Your task to perform on an android device: open the mobile data screen to see how much data has been used Image 0: 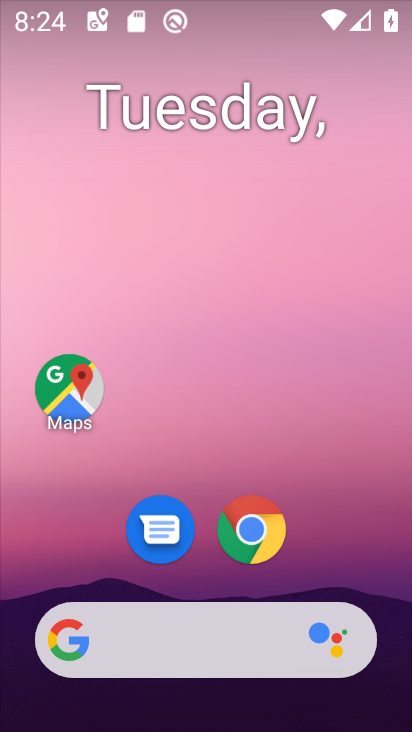
Step 0: drag from (196, 560) to (253, 53)
Your task to perform on an android device: open the mobile data screen to see how much data has been used Image 1: 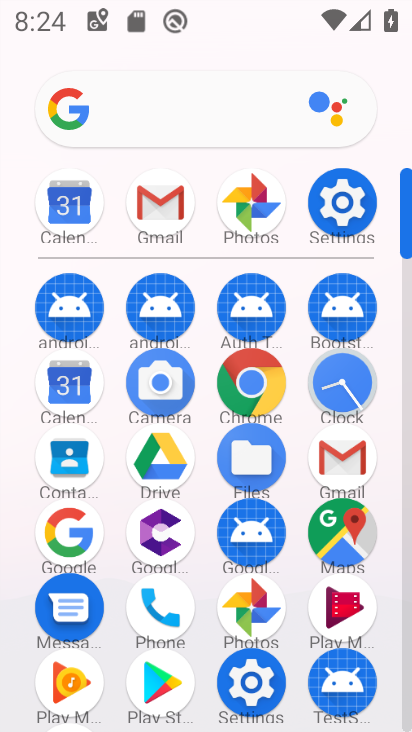
Step 1: click (321, 191)
Your task to perform on an android device: open the mobile data screen to see how much data has been used Image 2: 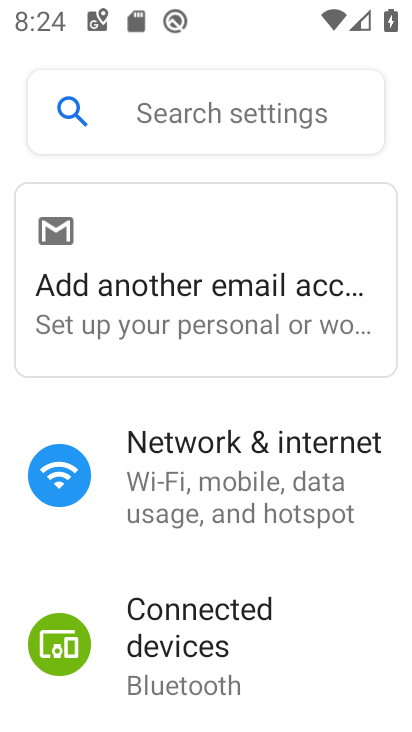
Step 2: click (256, 500)
Your task to perform on an android device: open the mobile data screen to see how much data has been used Image 3: 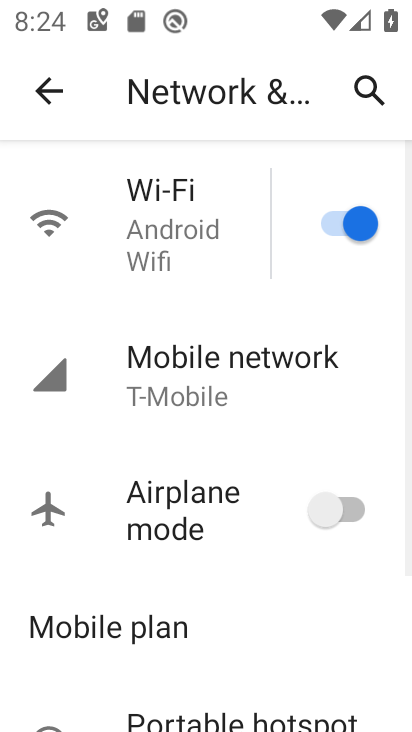
Step 3: click (197, 363)
Your task to perform on an android device: open the mobile data screen to see how much data has been used Image 4: 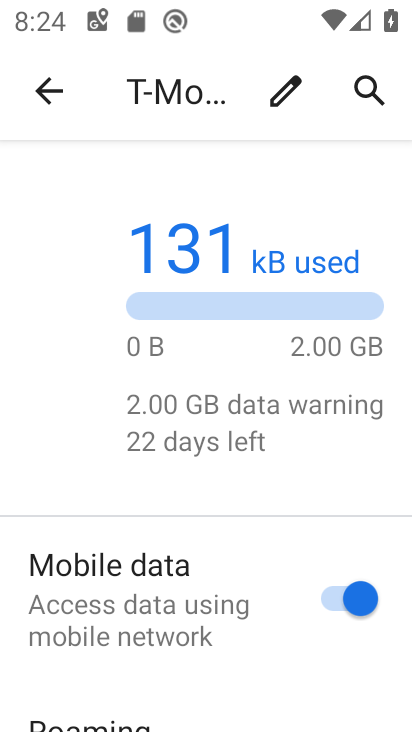
Step 4: drag from (179, 659) to (278, 61)
Your task to perform on an android device: open the mobile data screen to see how much data has been used Image 5: 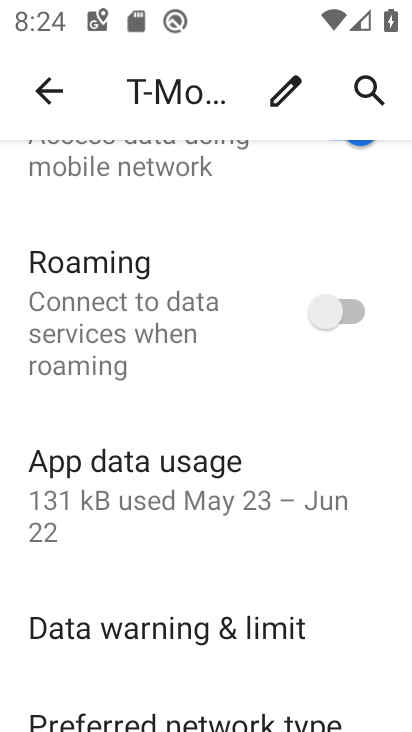
Step 5: click (168, 476)
Your task to perform on an android device: open the mobile data screen to see how much data has been used Image 6: 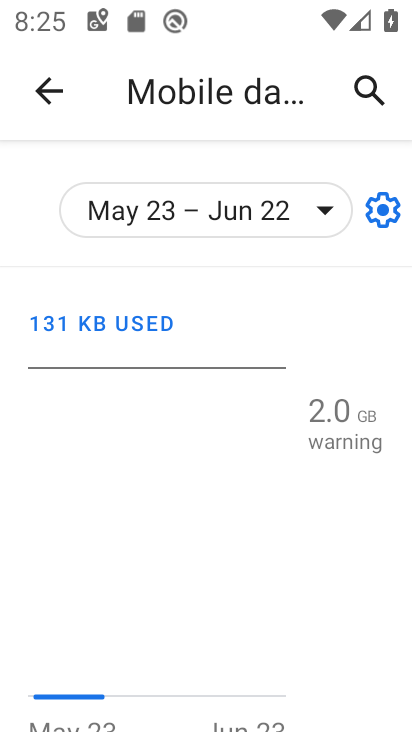
Step 6: task complete